Your task to perform on an android device: Do I have any events this weekend? Image 0: 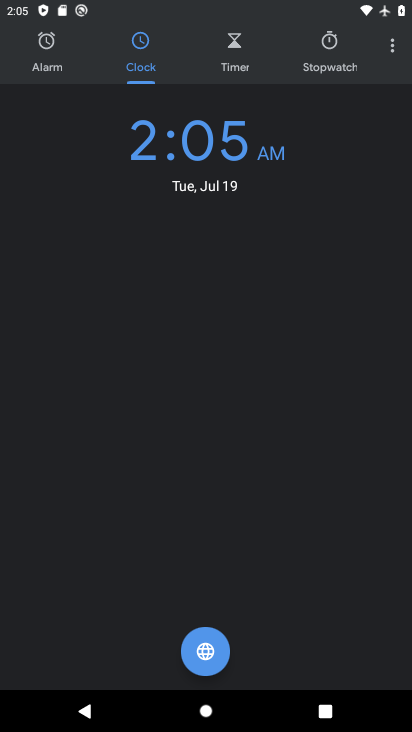
Step 0: press home button
Your task to perform on an android device: Do I have any events this weekend? Image 1: 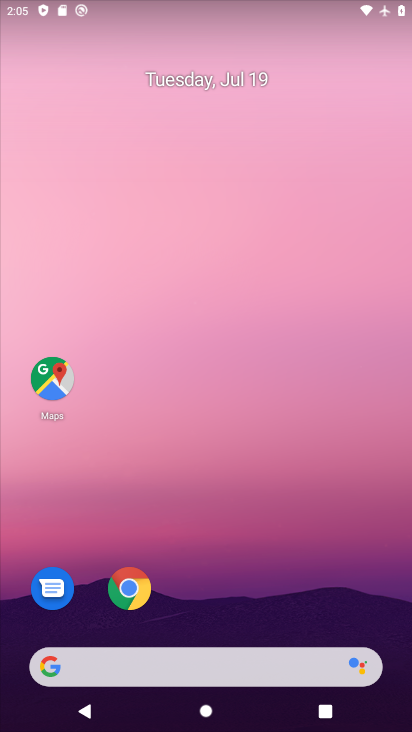
Step 1: drag from (263, 597) to (219, 164)
Your task to perform on an android device: Do I have any events this weekend? Image 2: 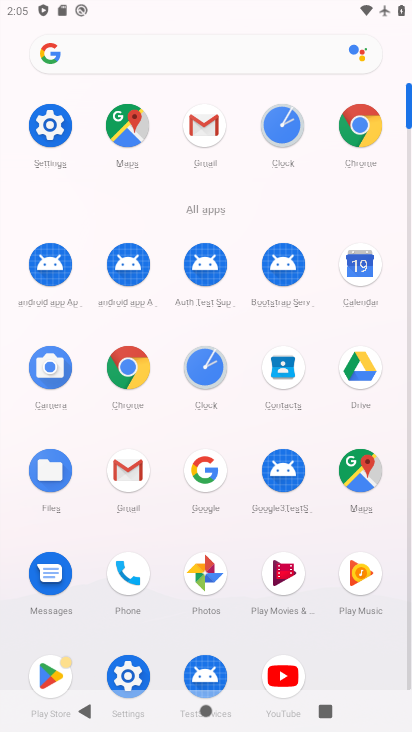
Step 2: click (367, 274)
Your task to perform on an android device: Do I have any events this weekend? Image 3: 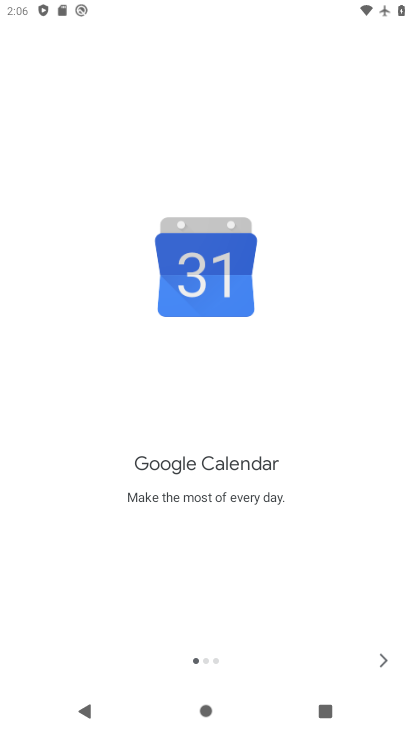
Step 3: click (383, 665)
Your task to perform on an android device: Do I have any events this weekend? Image 4: 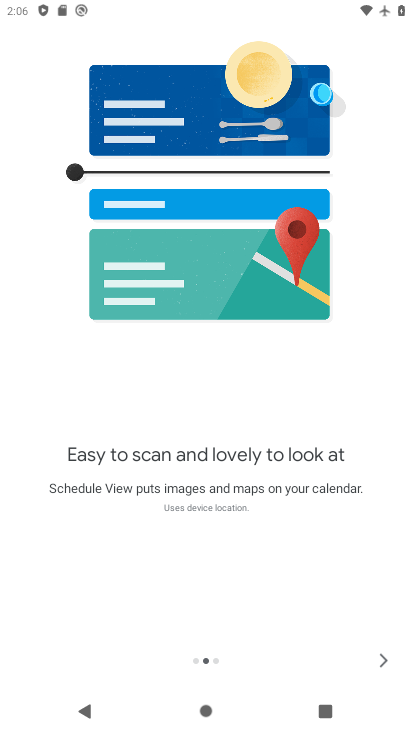
Step 4: click (383, 665)
Your task to perform on an android device: Do I have any events this weekend? Image 5: 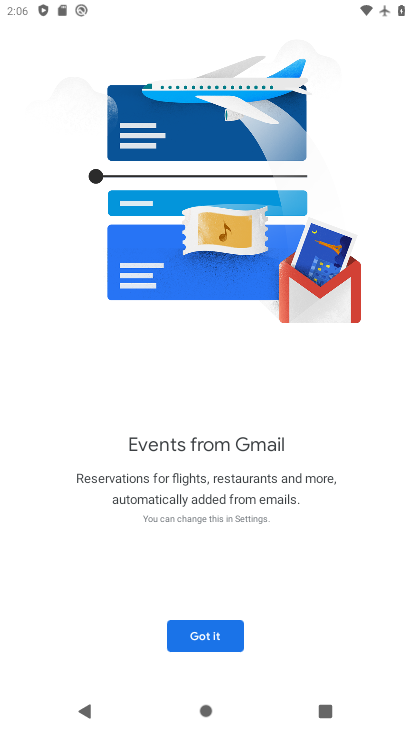
Step 5: click (201, 634)
Your task to perform on an android device: Do I have any events this weekend? Image 6: 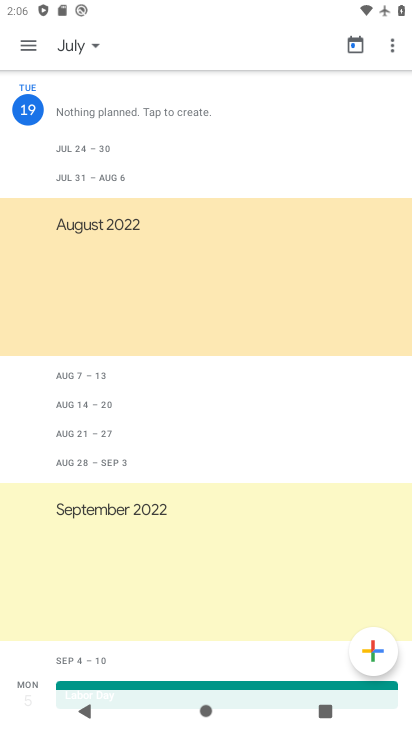
Step 6: click (26, 52)
Your task to perform on an android device: Do I have any events this weekend? Image 7: 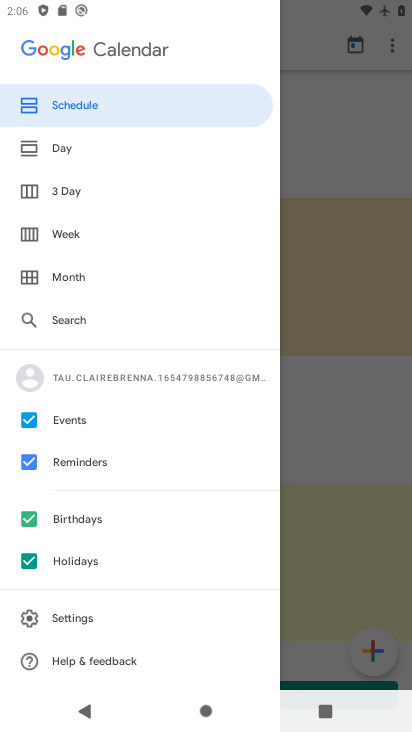
Step 7: click (77, 240)
Your task to perform on an android device: Do I have any events this weekend? Image 8: 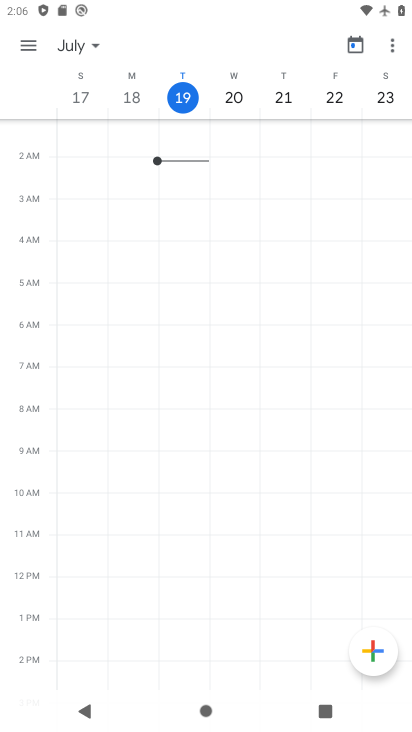
Step 8: task complete